Your task to perform on an android device: Is it going to rain this weekend? Image 0: 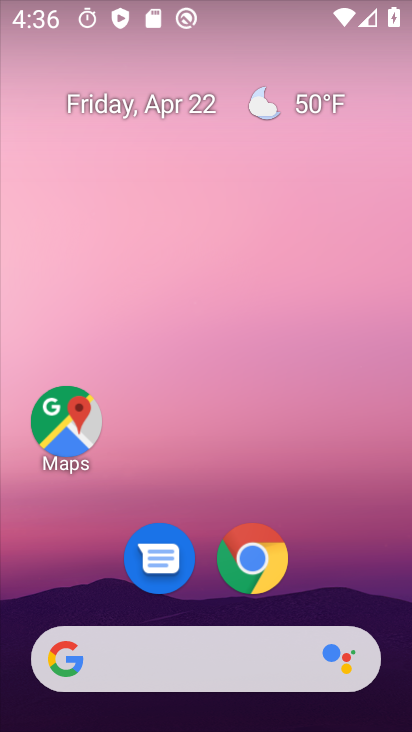
Step 0: drag from (314, 607) to (269, 248)
Your task to perform on an android device: Is it going to rain this weekend? Image 1: 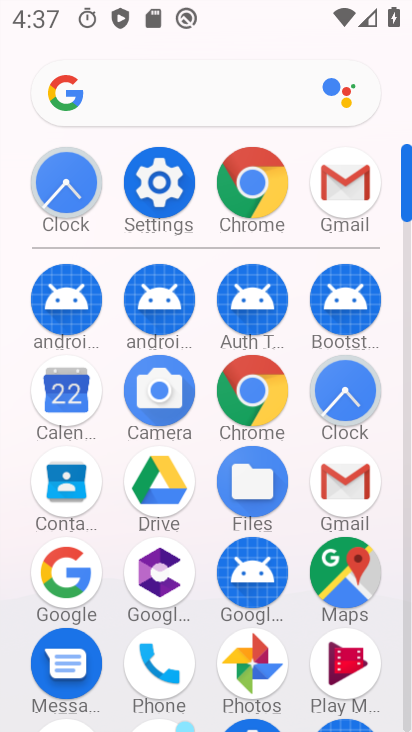
Step 1: click (64, 579)
Your task to perform on an android device: Is it going to rain this weekend? Image 2: 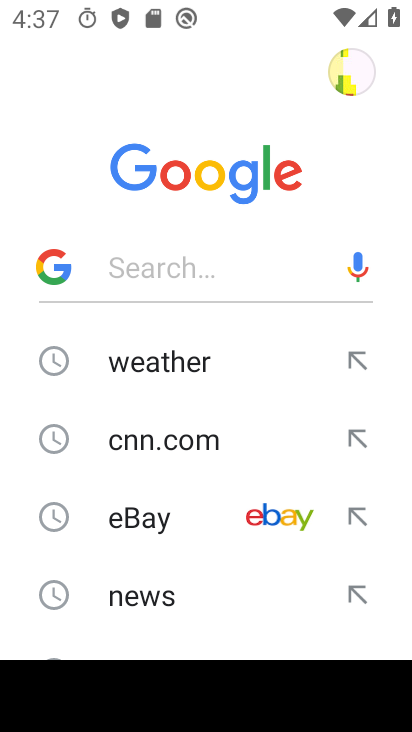
Step 2: click (156, 370)
Your task to perform on an android device: Is it going to rain this weekend? Image 3: 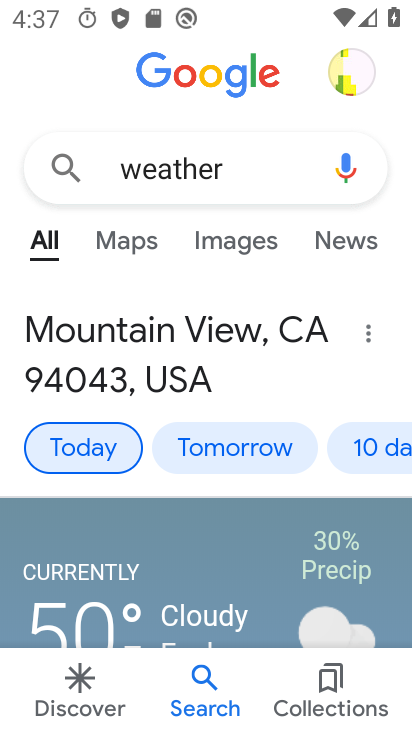
Step 3: drag from (234, 599) to (238, 270)
Your task to perform on an android device: Is it going to rain this weekend? Image 4: 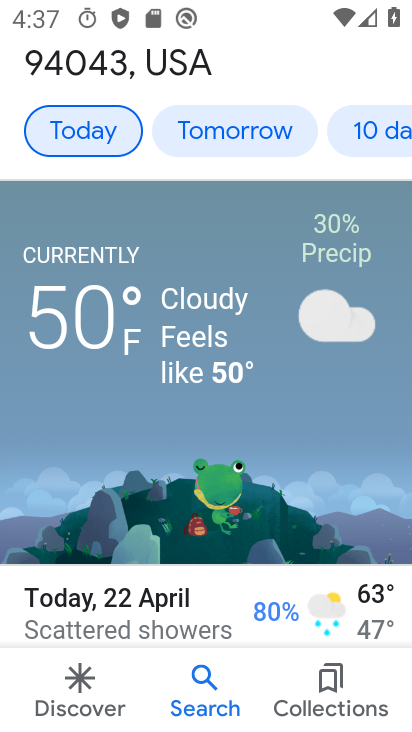
Step 4: drag from (284, 609) to (337, 316)
Your task to perform on an android device: Is it going to rain this weekend? Image 5: 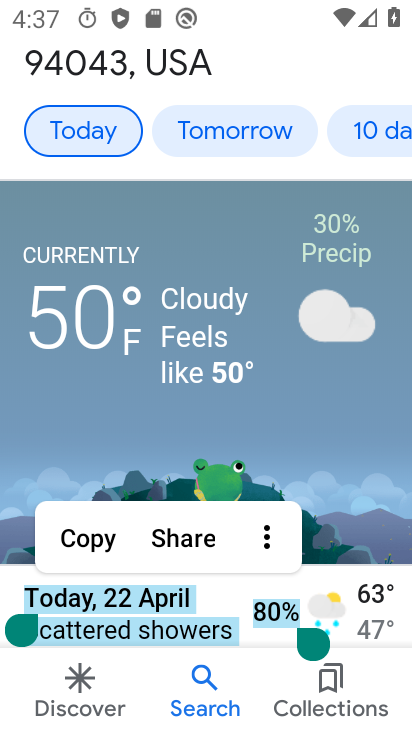
Step 5: click (329, 588)
Your task to perform on an android device: Is it going to rain this weekend? Image 6: 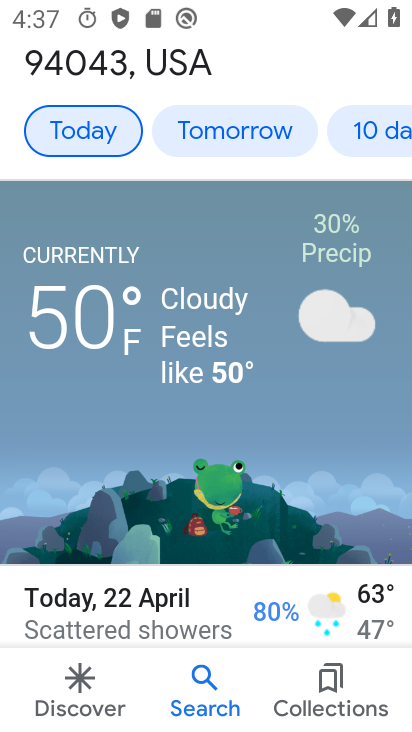
Step 6: task complete